Your task to perform on an android device: Open wifi settings Image 0: 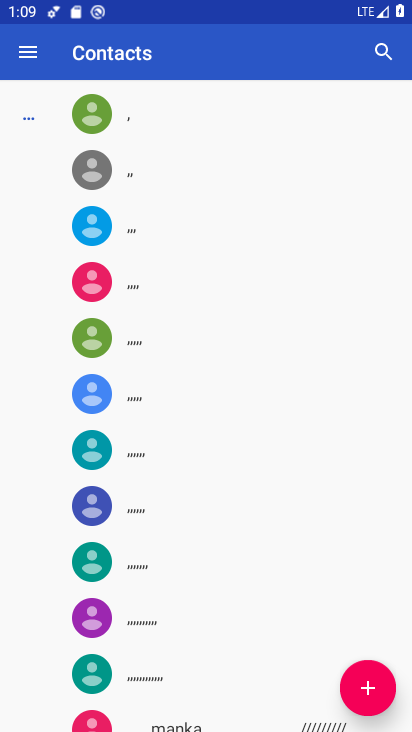
Step 0: press home button
Your task to perform on an android device: Open wifi settings Image 1: 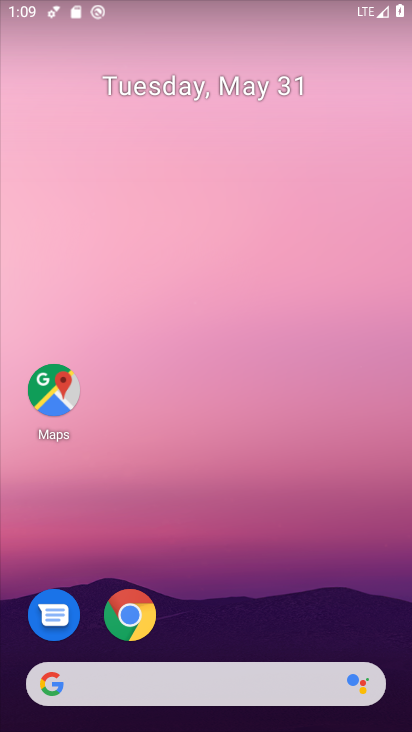
Step 1: drag from (205, 565) to (26, 79)
Your task to perform on an android device: Open wifi settings Image 2: 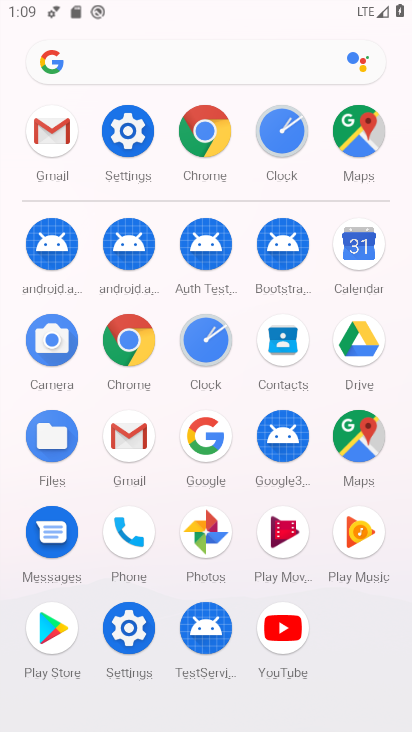
Step 2: click (134, 638)
Your task to perform on an android device: Open wifi settings Image 3: 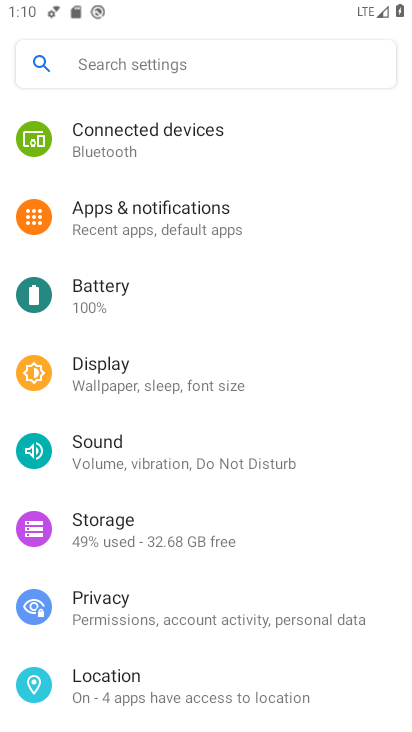
Step 3: drag from (215, 209) to (192, 731)
Your task to perform on an android device: Open wifi settings Image 4: 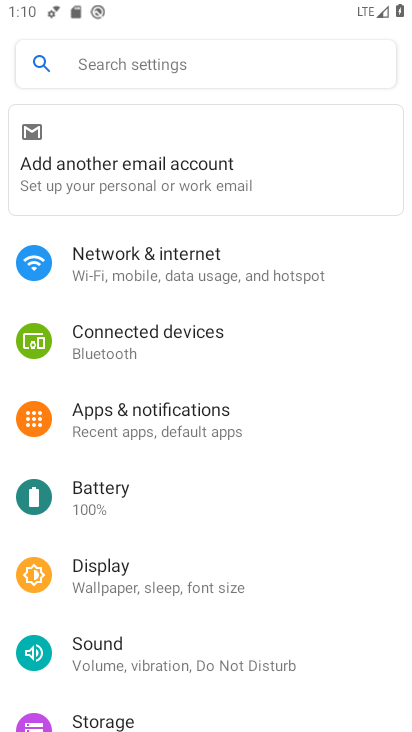
Step 4: click (188, 259)
Your task to perform on an android device: Open wifi settings Image 5: 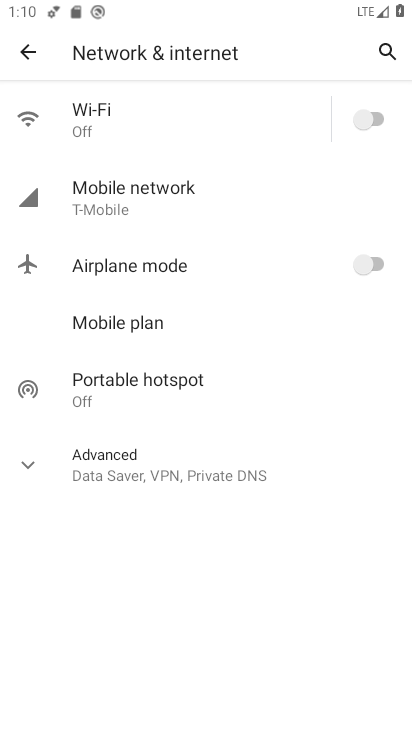
Step 5: click (170, 120)
Your task to perform on an android device: Open wifi settings Image 6: 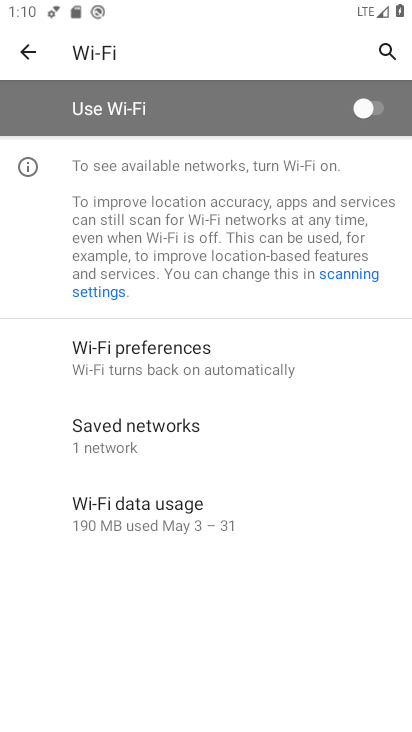
Step 6: task complete